Your task to perform on an android device: Is it going to rain tomorrow? Image 0: 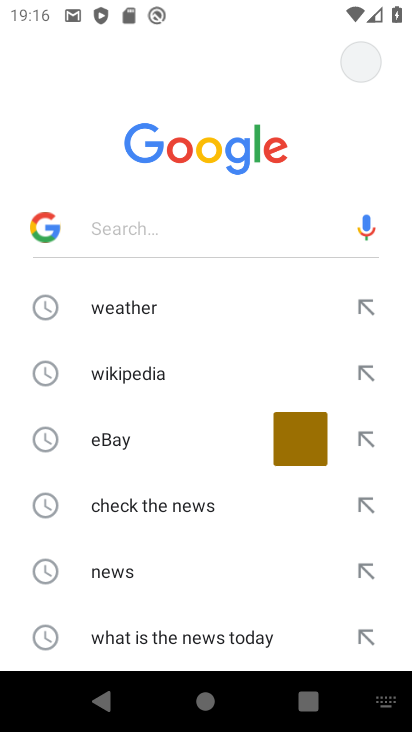
Step 0: press home button
Your task to perform on an android device: Is it going to rain tomorrow? Image 1: 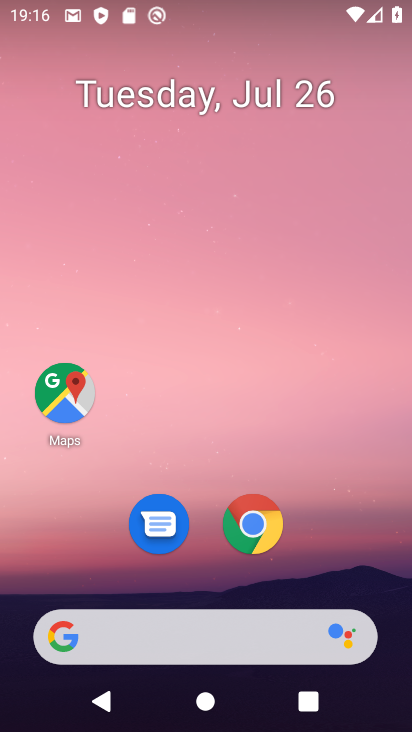
Step 1: click (142, 638)
Your task to perform on an android device: Is it going to rain tomorrow? Image 2: 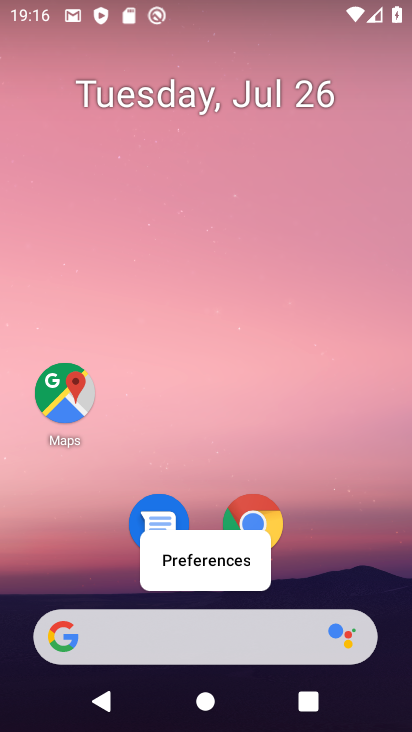
Step 2: click (156, 628)
Your task to perform on an android device: Is it going to rain tomorrow? Image 3: 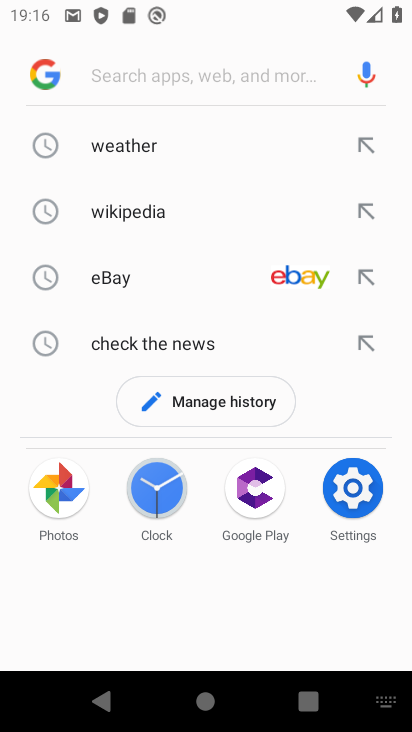
Step 3: click (130, 142)
Your task to perform on an android device: Is it going to rain tomorrow? Image 4: 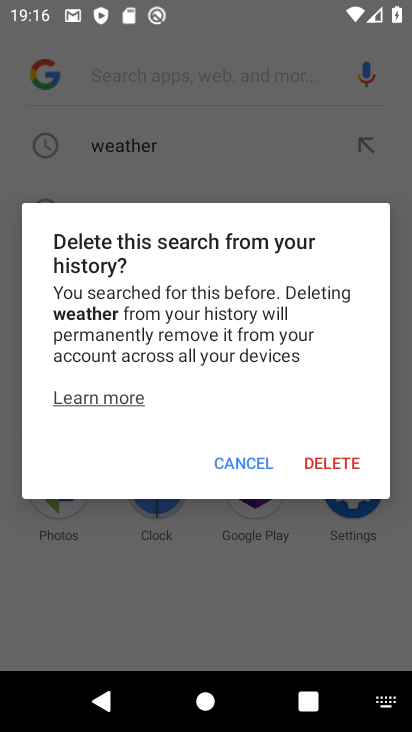
Step 4: click (236, 473)
Your task to perform on an android device: Is it going to rain tomorrow? Image 5: 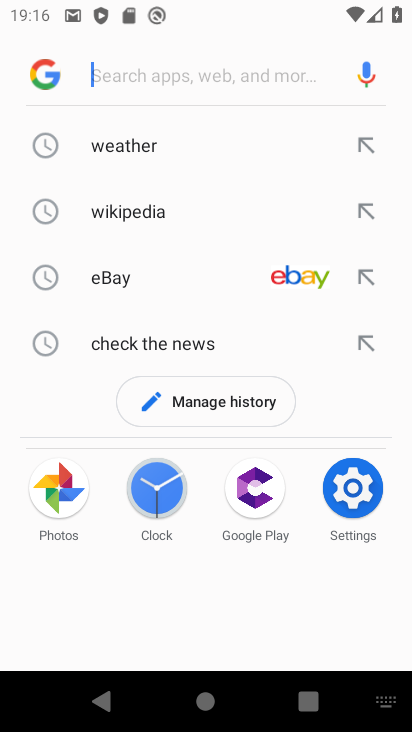
Step 5: click (136, 142)
Your task to perform on an android device: Is it going to rain tomorrow? Image 6: 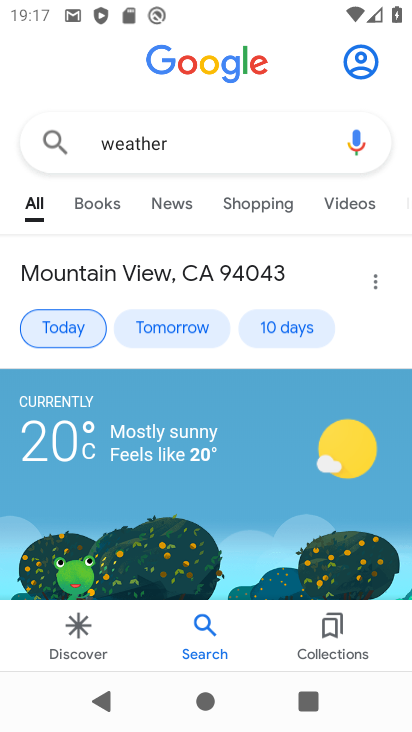
Step 6: click (179, 330)
Your task to perform on an android device: Is it going to rain tomorrow? Image 7: 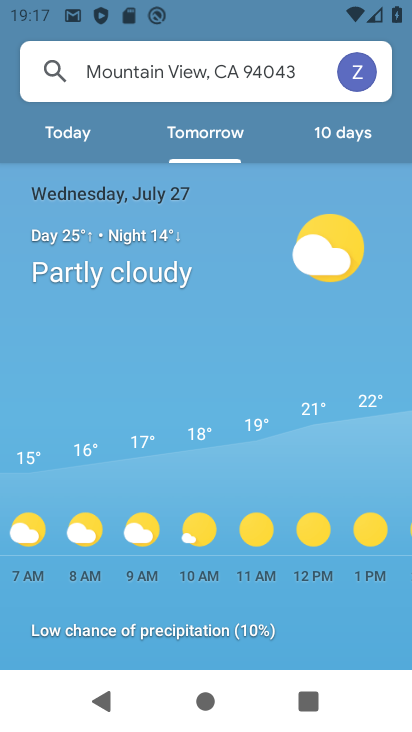
Step 7: task complete